Your task to perform on an android device: What's the weather today? Image 0: 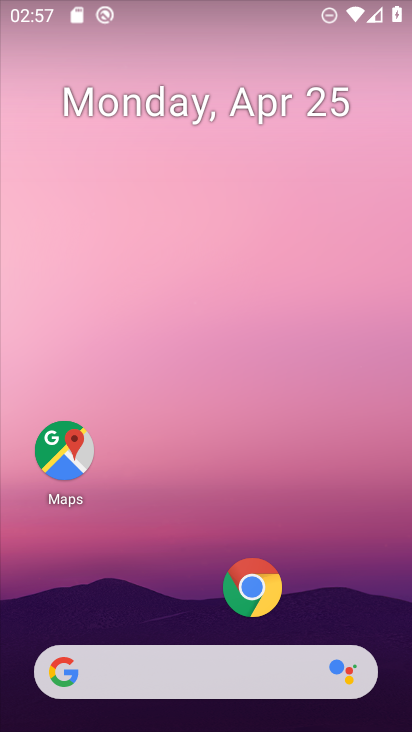
Step 0: click (190, 675)
Your task to perform on an android device: What's the weather today? Image 1: 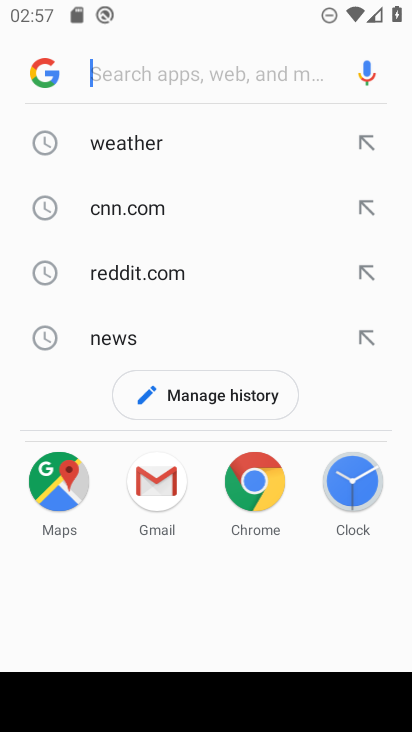
Step 1: click (144, 136)
Your task to perform on an android device: What's the weather today? Image 2: 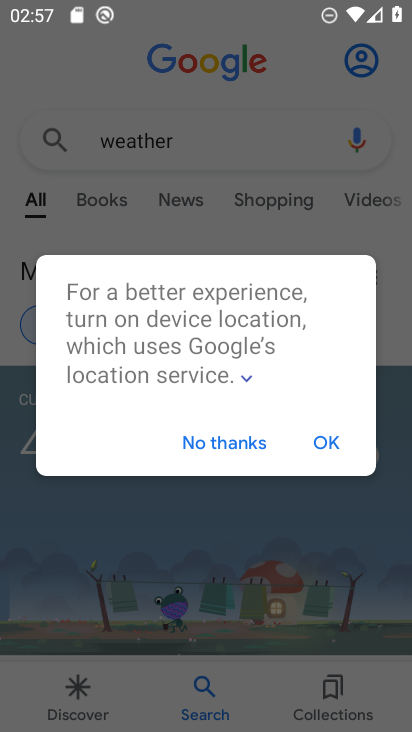
Step 2: click (336, 437)
Your task to perform on an android device: What's the weather today? Image 3: 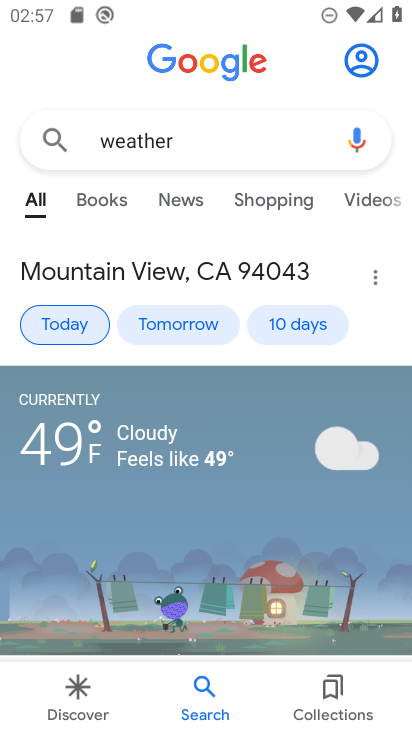
Step 3: task complete